Your task to perform on an android device: Go to accessibility settings Image 0: 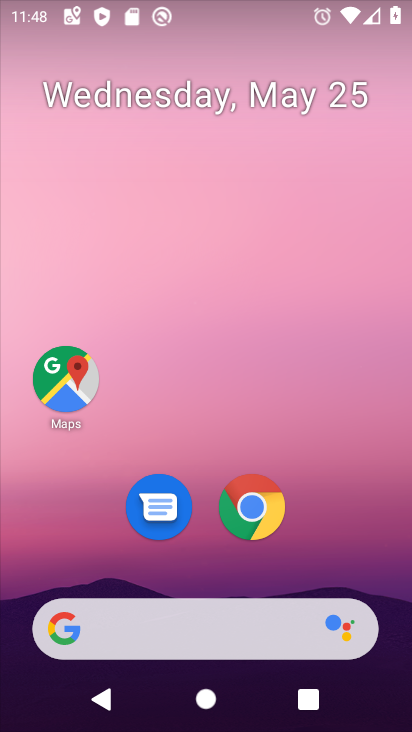
Step 0: drag from (343, 563) to (253, 83)
Your task to perform on an android device: Go to accessibility settings Image 1: 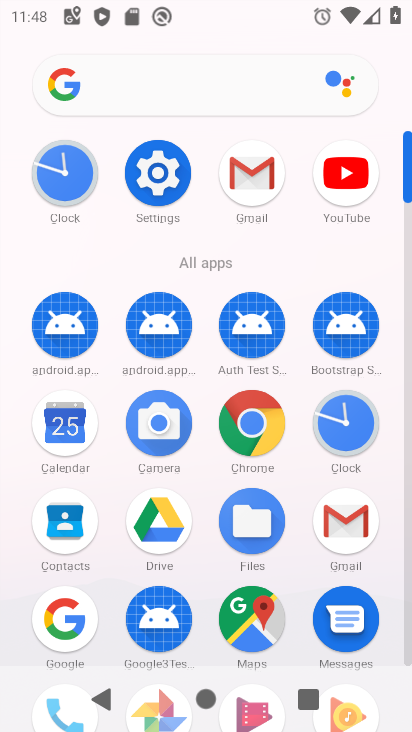
Step 1: click (157, 173)
Your task to perform on an android device: Go to accessibility settings Image 2: 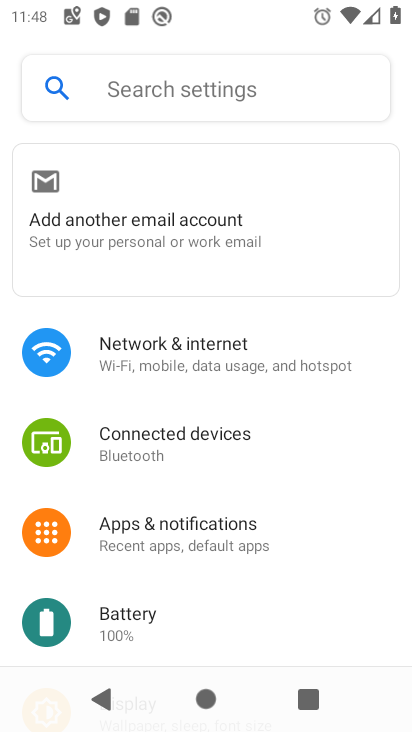
Step 2: drag from (154, 496) to (189, 390)
Your task to perform on an android device: Go to accessibility settings Image 3: 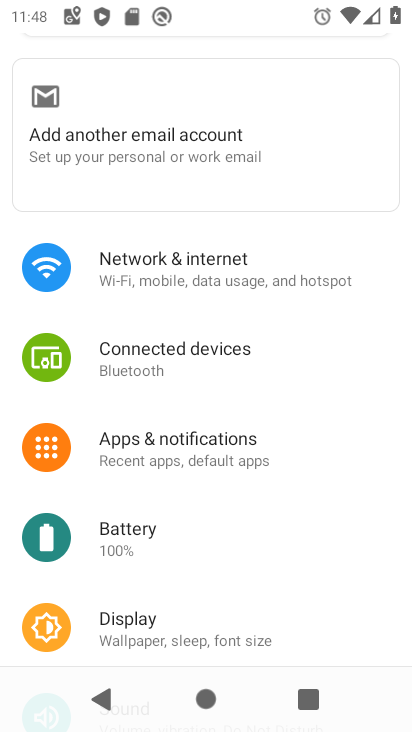
Step 3: drag from (191, 564) to (203, 479)
Your task to perform on an android device: Go to accessibility settings Image 4: 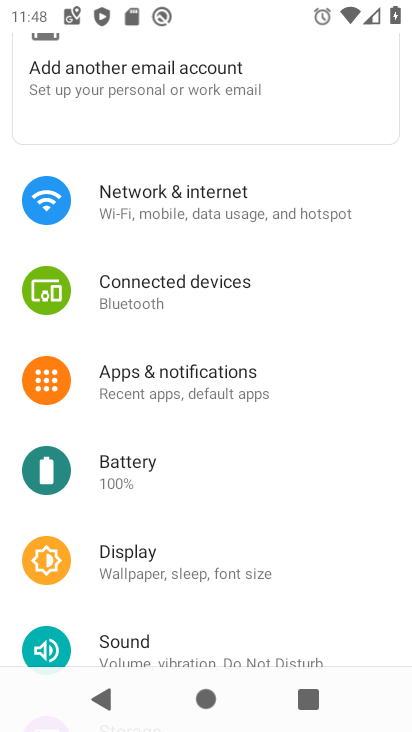
Step 4: drag from (189, 520) to (225, 435)
Your task to perform on an android device: Go to accessibility settings Image 5: 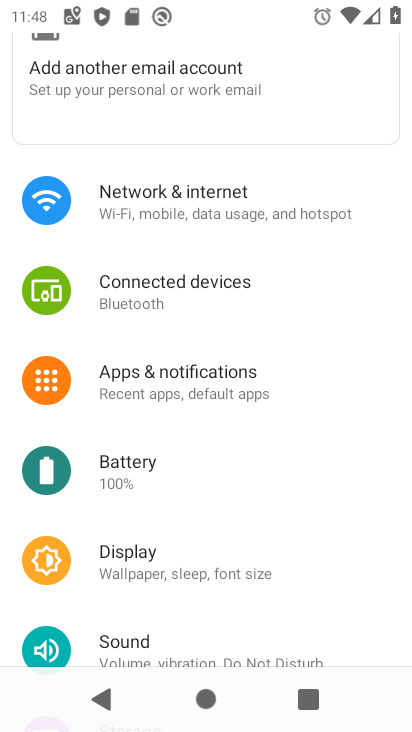
Step 5: drag from (188, 609) to (208, 508)
Your task to perform on an android device: Go to accessibility settings Image 6: 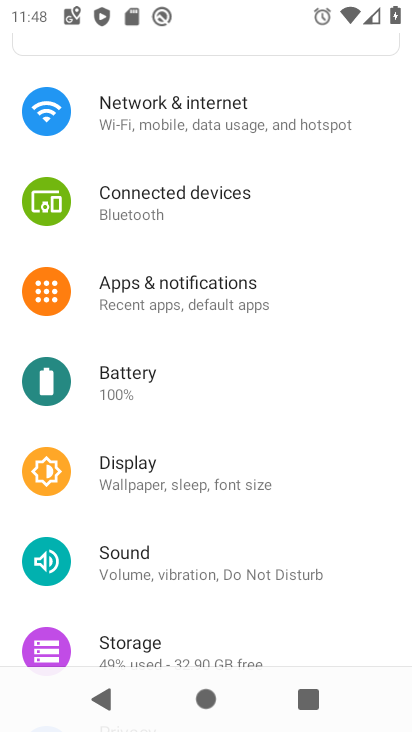
Step 6: drag from (169, 616) to (226, 467)
Your task to perform on an android device: Go to accessibility settings Image 7: 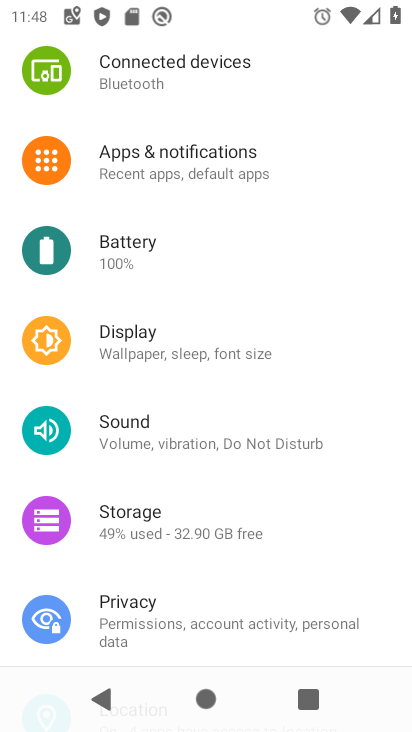
Step 7: drag from (180, 579) to (190, 423)
Your task to perform on an android device: Go to accessibility settings Image 8: 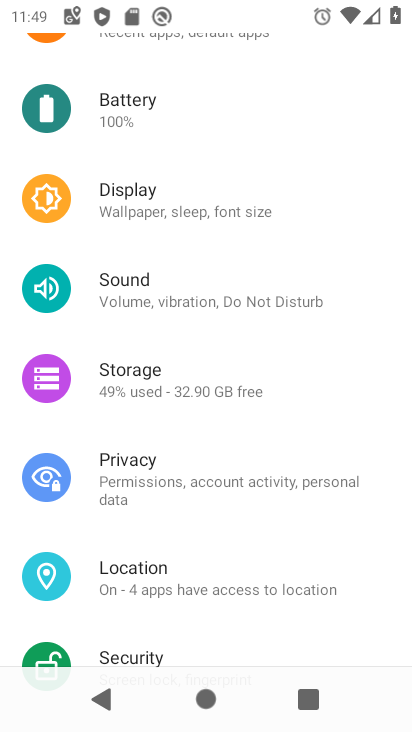
Step 8: drag from (172, 536) to (180, 395)
Your task to perform on an android device: Go to accessibility settings Image 9: 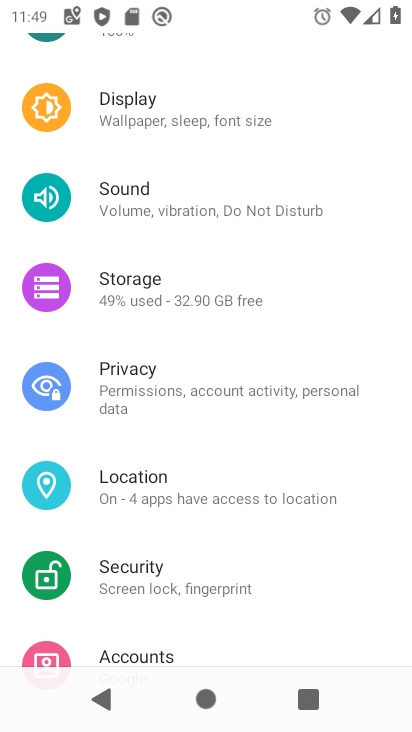
Step 9: drag from (178, 534) to (224, 419)
Your task to perform on an android device: Go to accessibility settings Image 10: 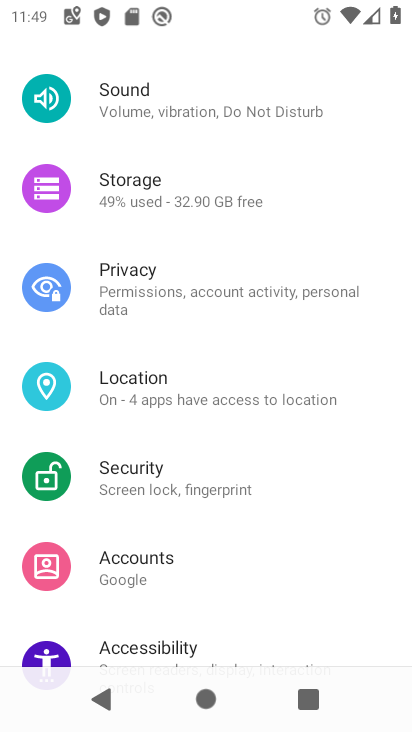
Step 10: drag from (185, 535) to (219, 413)
Your task to perform on an android device: Go to accessibility settings Image 11: 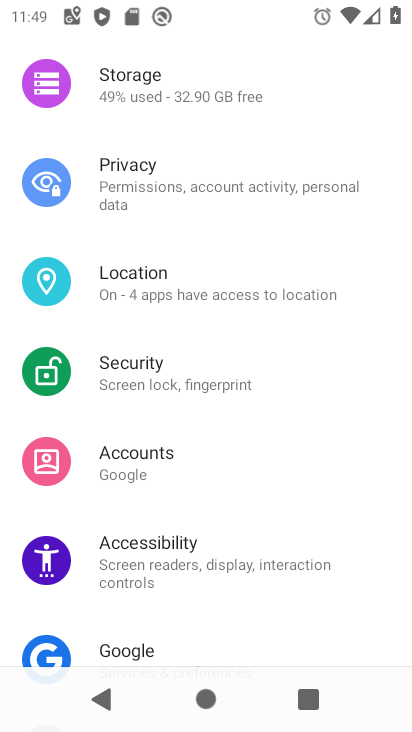
Step 11: click (147, 551)
Your task to perform on an android device: Go to accessibility settings Image 12: 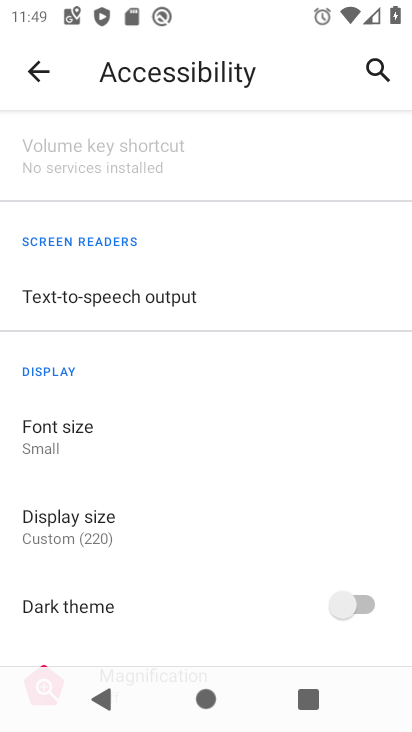
Step 12: task complete